Your task to perform on an android device: Open the Play Movies app and select the watchlist tab. Image 0: 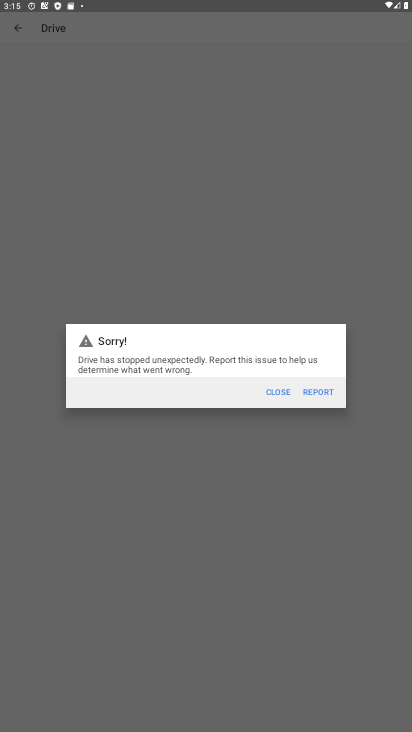
Step 0: press home button
Your task to perform on an android device: Open the Play Movies app and select the watchlist tab. Image 1: 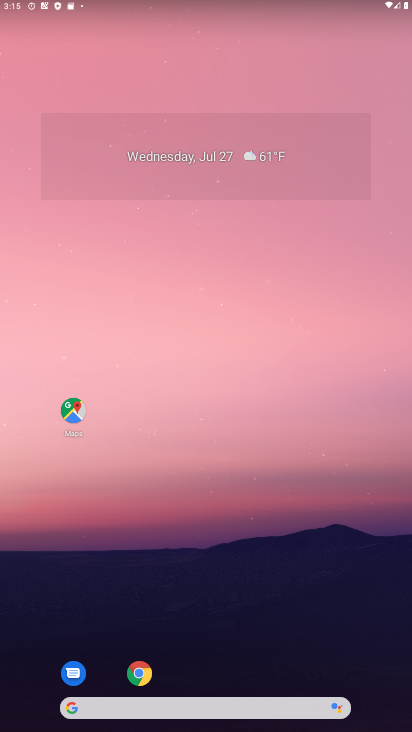
Step 1: drag from (35, 593) to (150, 140)
Your task to perform on an android device: Open the Play Movies app and select the watchlist tab. Image 2: 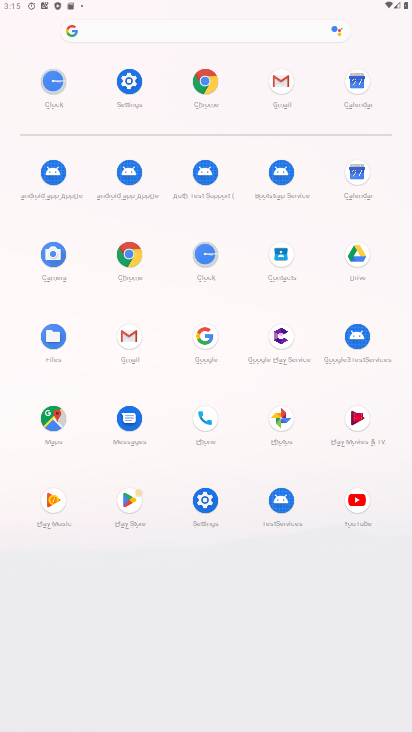
Step 2: click (351, 430)
Your task to perform on an android device: Open the Play Movies app and select the watchlist tab. Image 3: 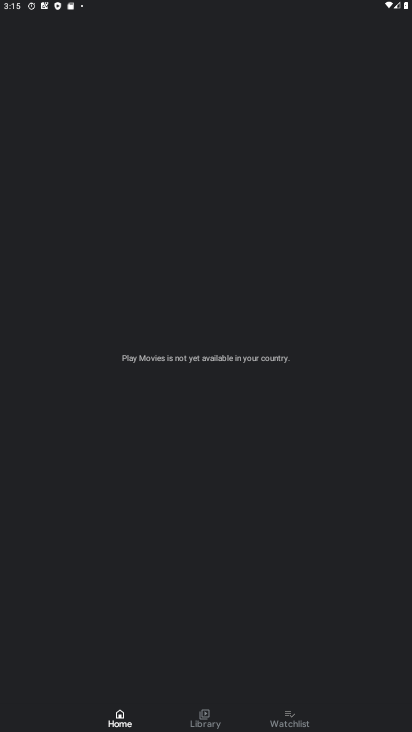
Step 3: click (286, 699)
Your task to perform on an android device: Open the Play Movies app and select the watchlist tab. Image 4: 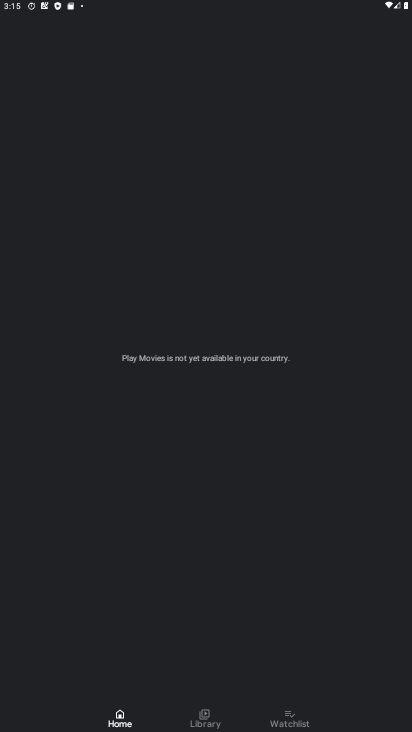
Step 4: click (285, 708)
Your task to perform on an android device: Open the Play Movies app and select the watchlist tab. Image 5: 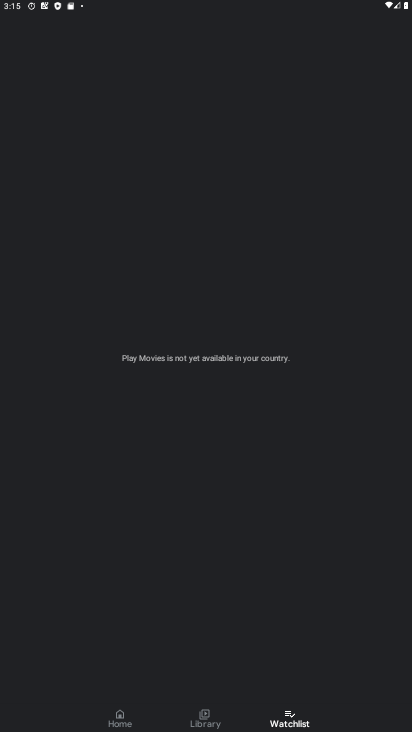
Step 5: task complete